Your task to perform on an android device: move a message to another label in the gmail app Image 0: 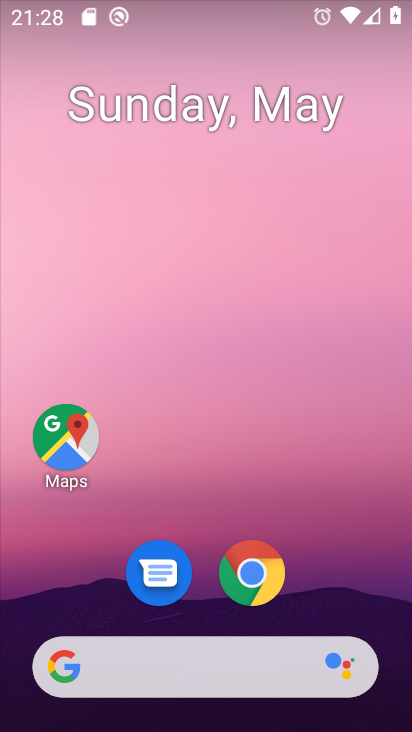
Step 0: drag from (223, 488) to (229, 0)
Your task to perform on an android device: move a message to another label in the gmail app Image 1: 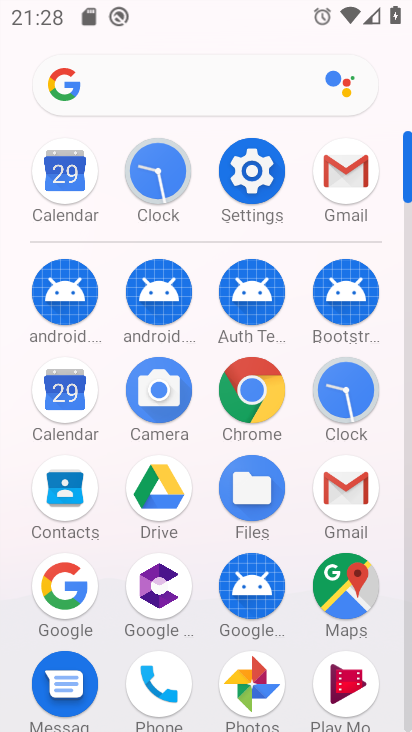
Step 1: click (328, 161)
Your task to perform on an android device: move a message to another label in the gmail app Image 2: 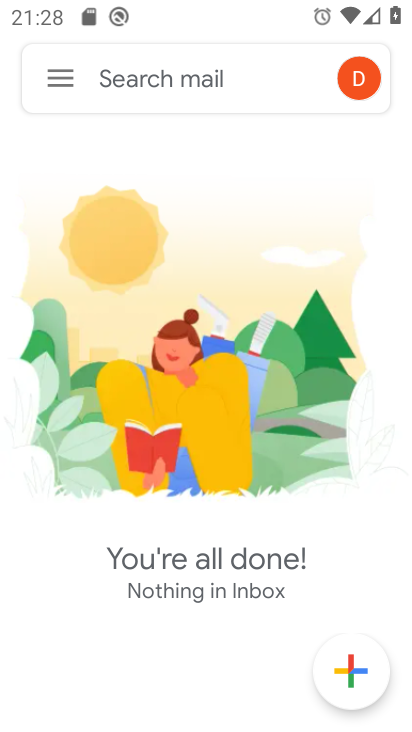
Step 2: click (63, 75)
Your task to perform on an android device: move a message to another label in the gmail app Image 3: 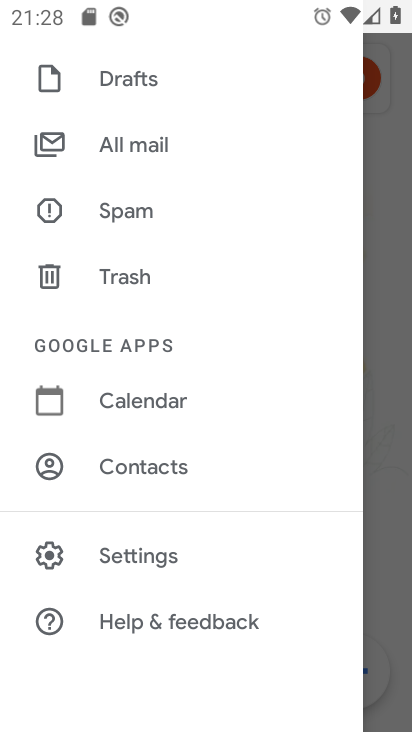
Step 3: click (148, 144)
Your task to perform on an android device: move a message to another label in the gmail app Image 4: 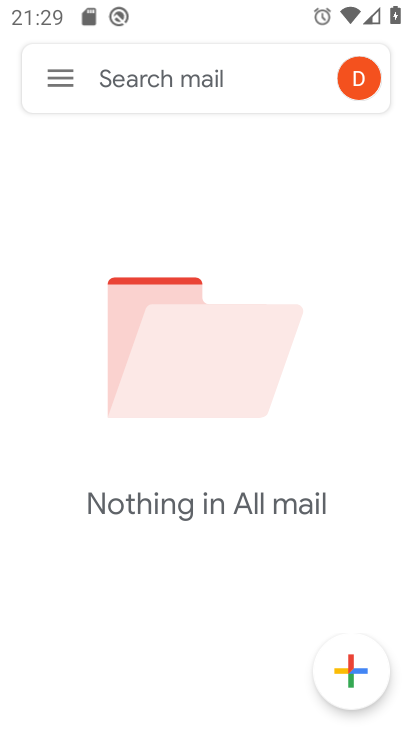
Step 4: task complete